Your task to perform on an android device: toggle priority inbox in the gmail app Image 0: 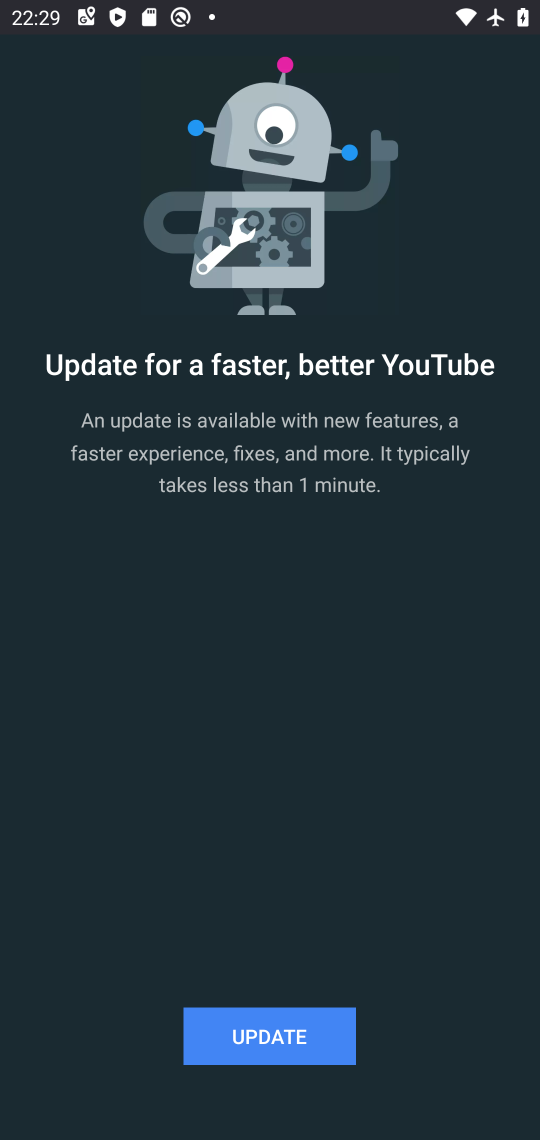
Step 0: press home button
Your task to perform on an android device: toggle priority inbox in the gmail app Image 1: 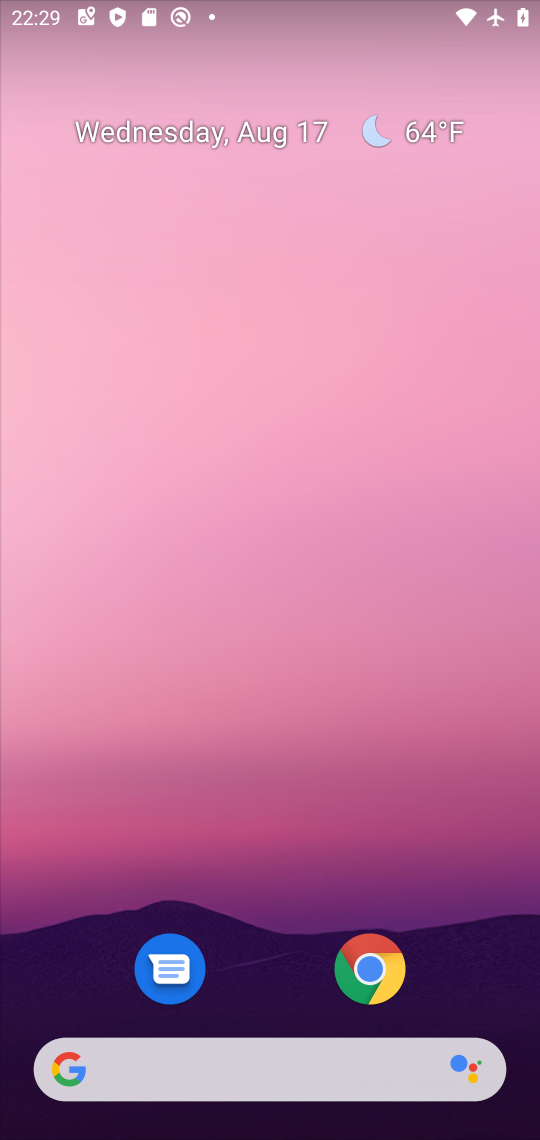
Step 1: drag from (245, 909) to (245, 56)
Your task to perform on an android device: toggle priority inbox in the gmail app Image 2: 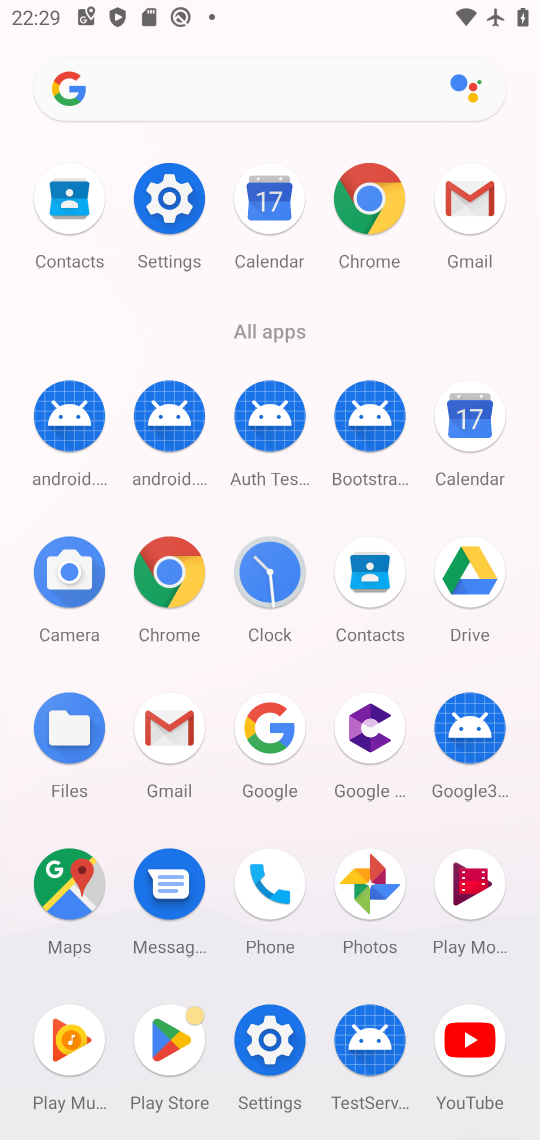
Step 2: click (459, 218)
Your task to perform on an android device: toggle priority inbox in the gmail app Image 3: 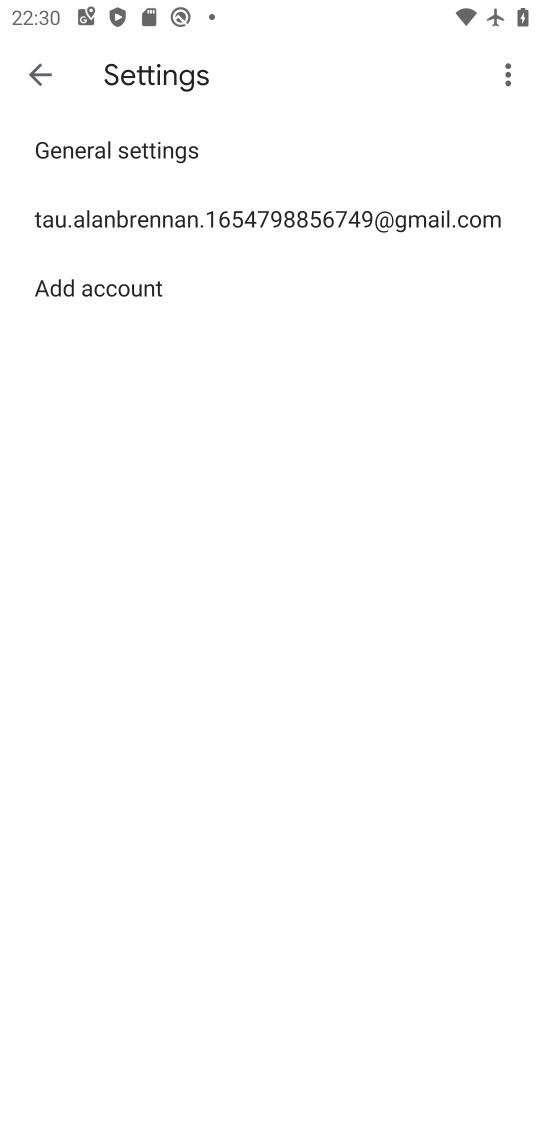
Step 3: click (123, 228)
Your task to perform on an android device: toggle priority inbox in the gmail app Image 4: 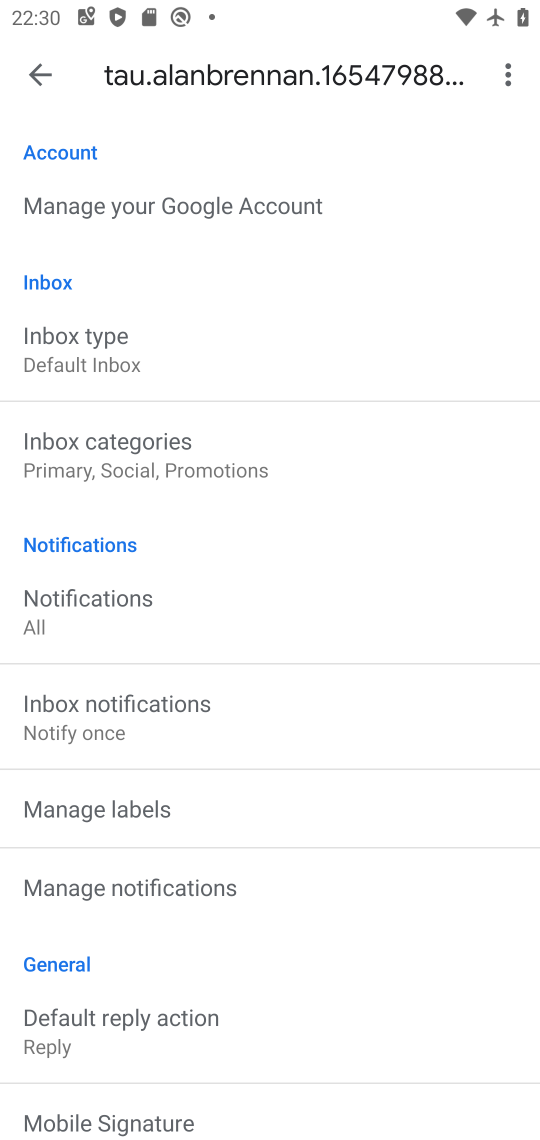
Step 4: click (59, 344)
Your task to perform on an android device: toggle priority inbox in the gmail app Image 5: 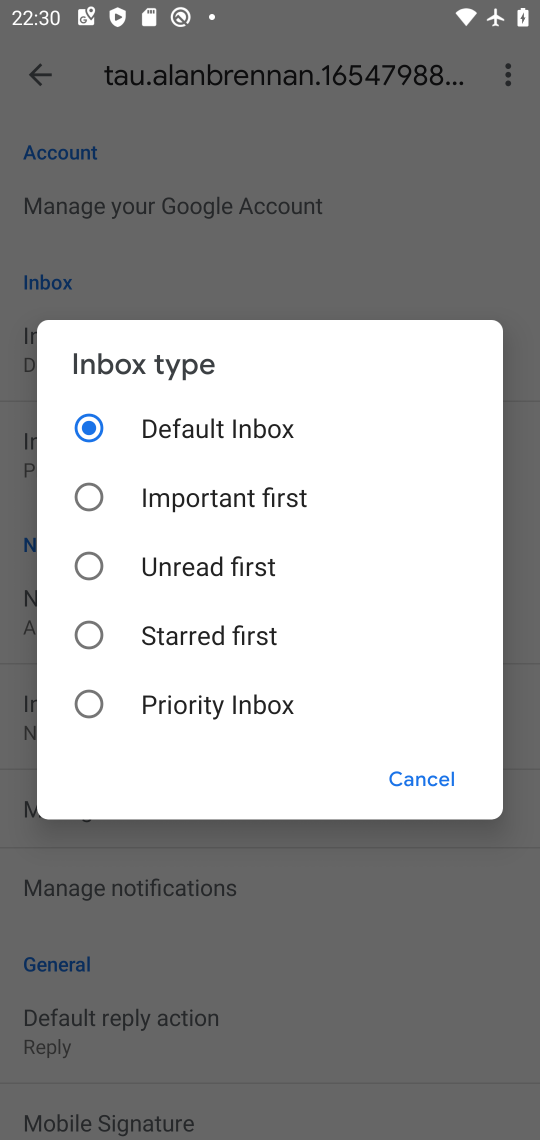
Step 5: click (96, 708)
Your task to perform on an android device: toggle priority inbox in the gmail app Image 6: 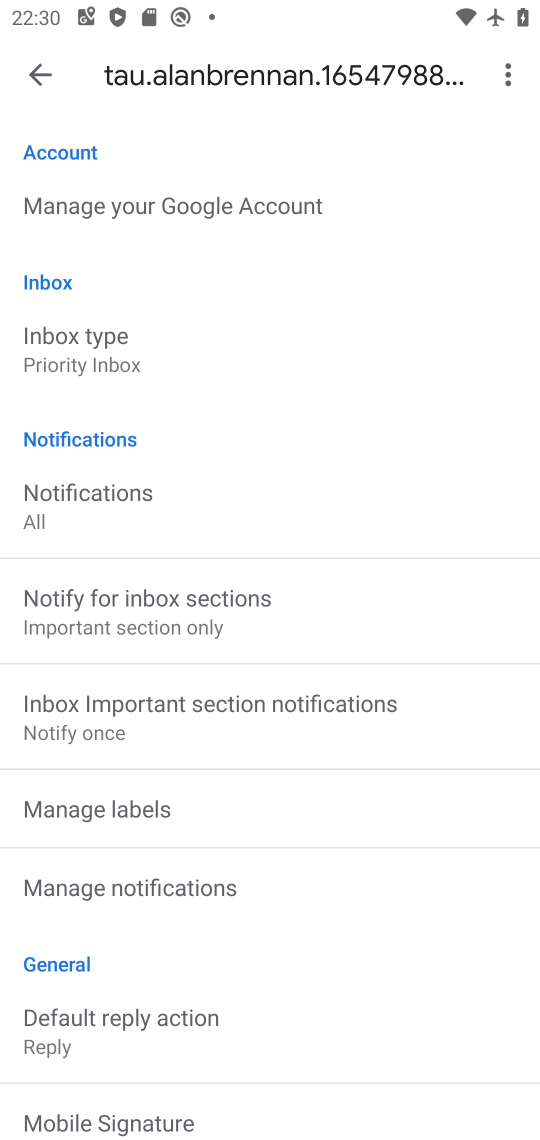
Step 6: task complete